Your task to perform on an android device: Open wifi settings Image 0: 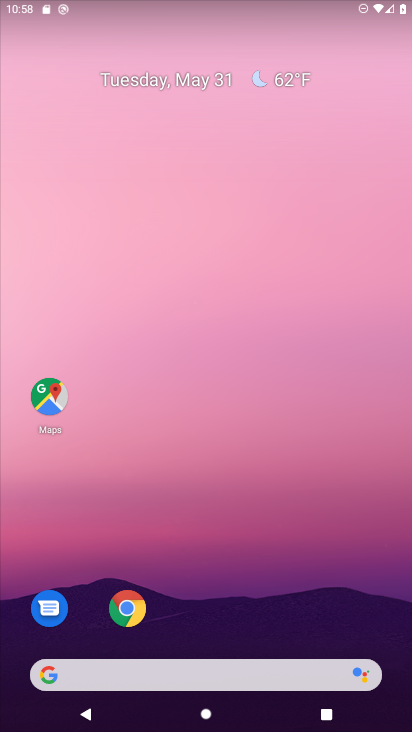
Step 0: click (359, 290)
Your task to perform on an android device: Open wifi settings Image 1: 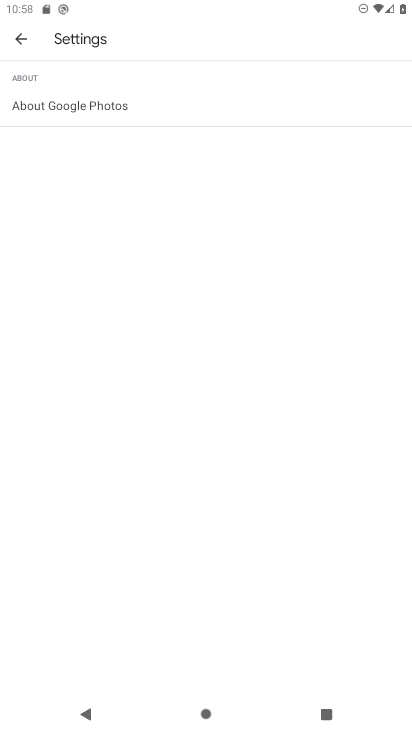
Step 1: press home button
Your task to perform on an android device: Open wifi settings Image 2: 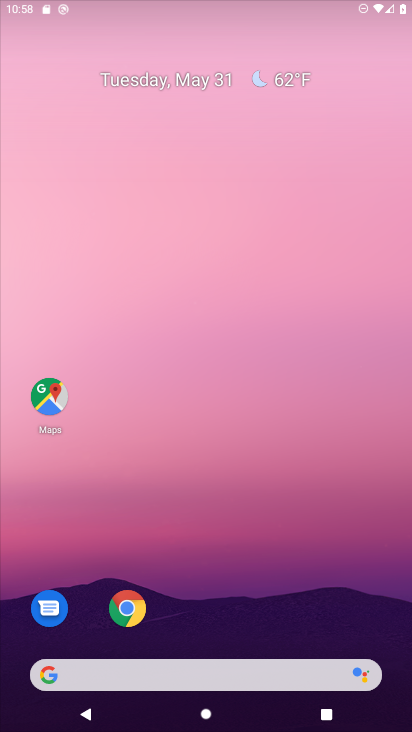
Step 2: drag from (346, 560) to (336, 116)
Your task to perform on an android device: Open wifi settings Image 3: 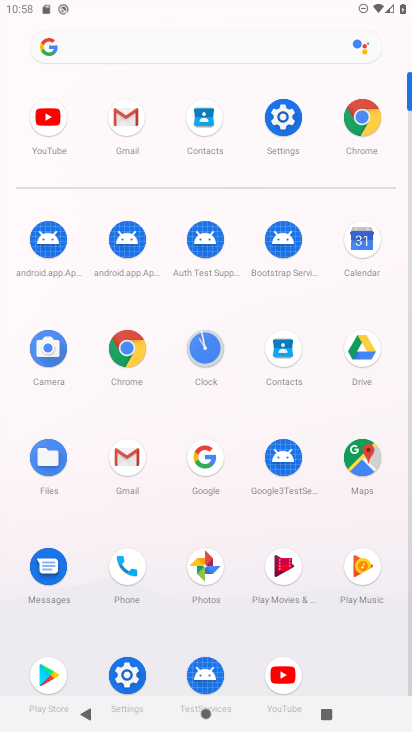
Step 3: click (284, 135)
Your task to perform on an android device: Open wifi settings Image 4: 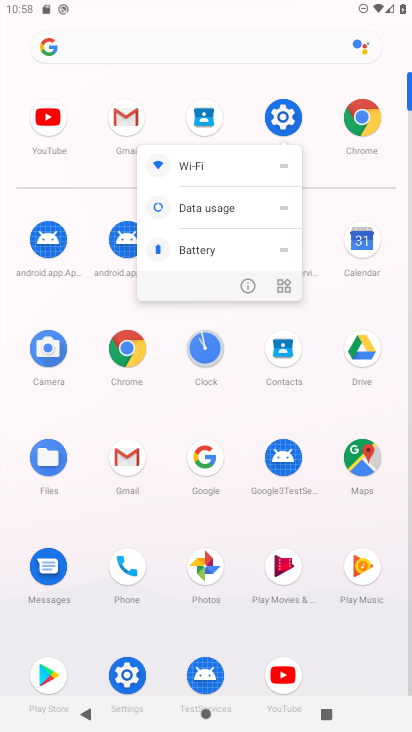
Step 4: click (291, 123)
Your task to perform on an android device: Open wifi settings Image 5: 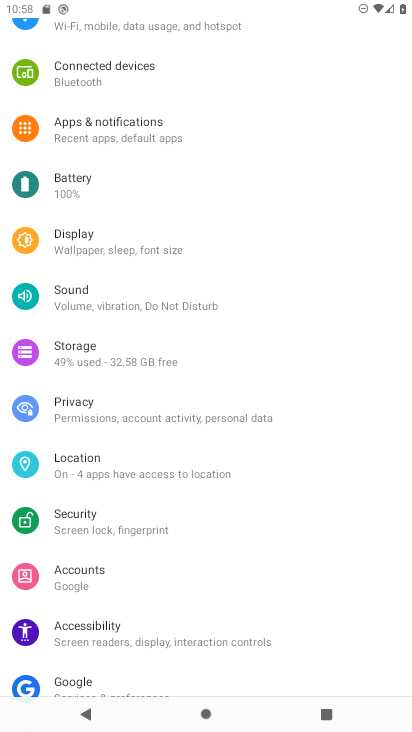
Step 5: drag from (105, 204) to (132, 524)
Your task to perform on an android device: Open wifi settings Image 6: 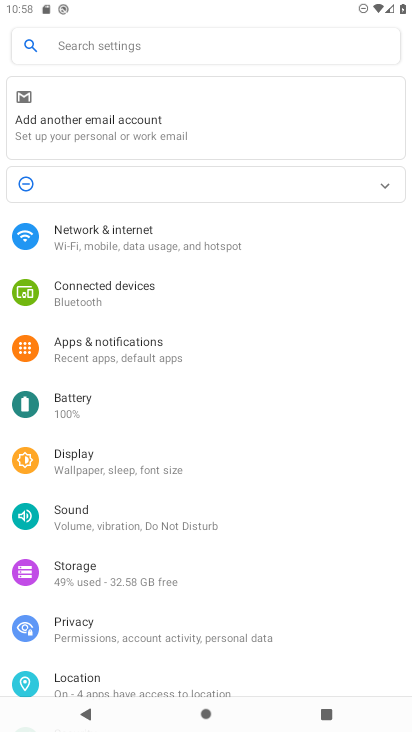
Step 6: click (133, 256)
Your task to perform on an android device: Open wifi settings Image 7: 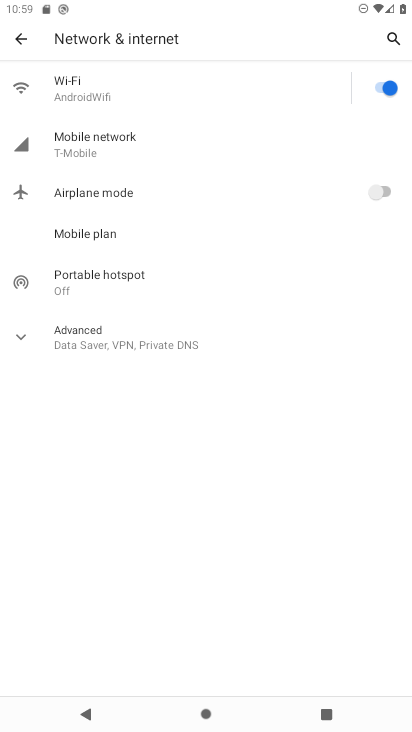
Step 7: task complete